Your task to perform on an android device: change alarm snooze length Image 0: 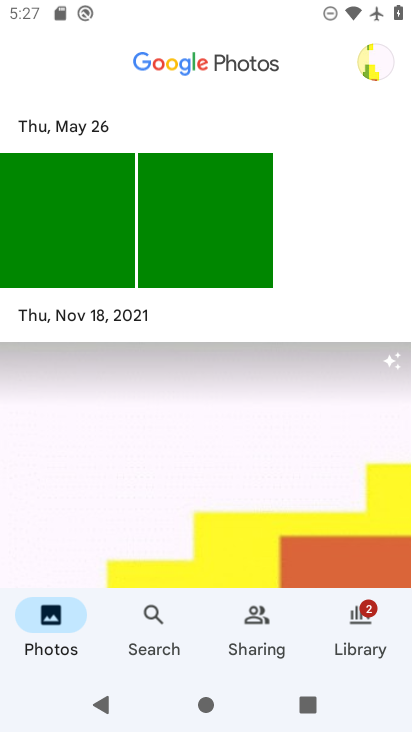
Step 0: press home button
Your task to perform on an android device: change alarm snooze length Image 1: 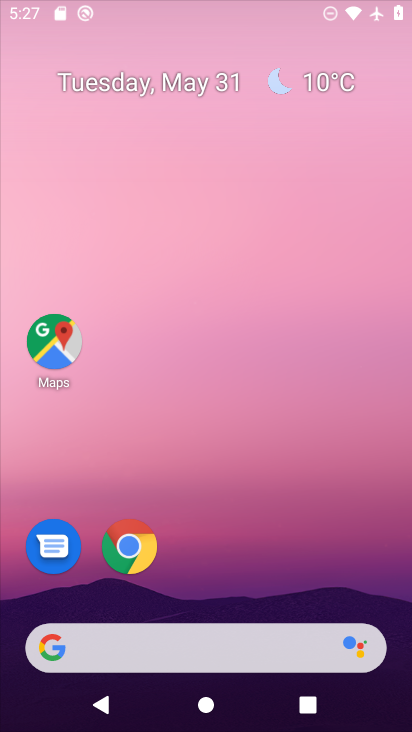
Step 1: drag from (257, 565) to (171, 22)
Your task to perform on an android device: change alarm snooze length Image 2: 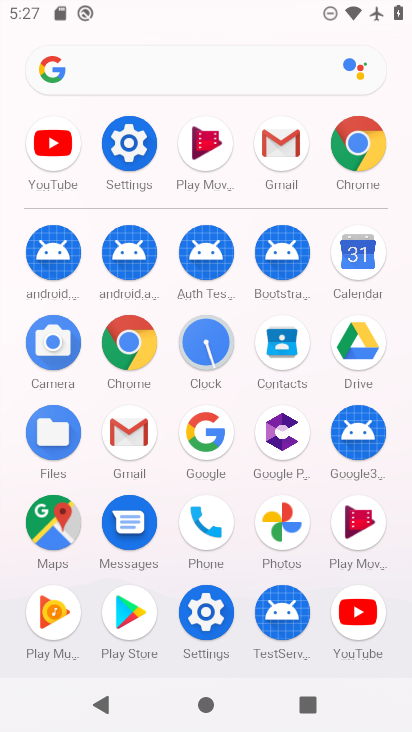
Step 2: click (207, 345)
Your task to perform on an android device: change alarm snooze length Image 3: 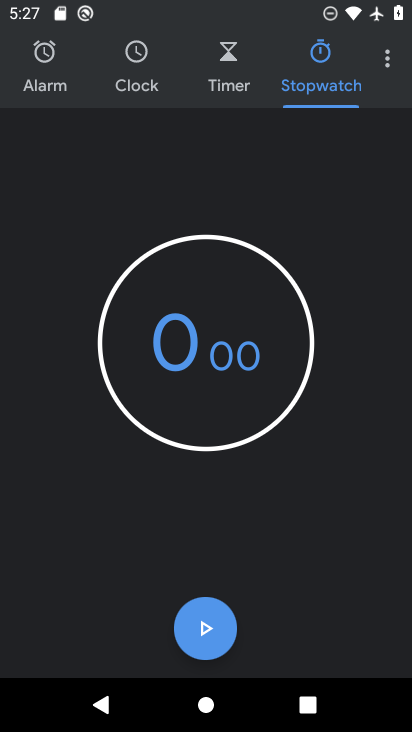
Step 3: click (388, 56)
Your task to perform on an android device: change alarm snooze length Image 4: 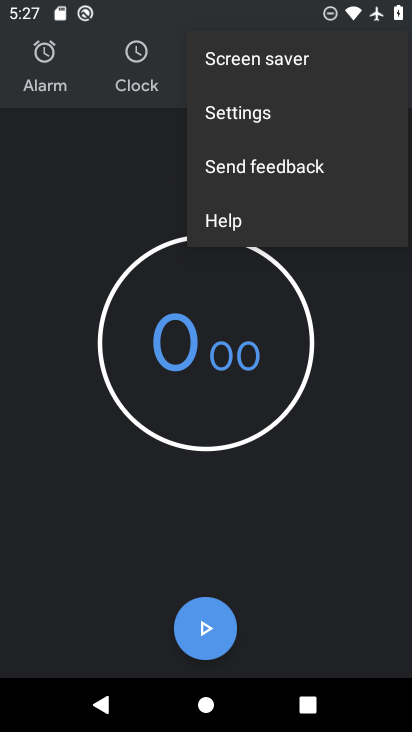
Step 4: click (265, 106)
Your task to perform on an android device: change alarm snooze length Image 5: 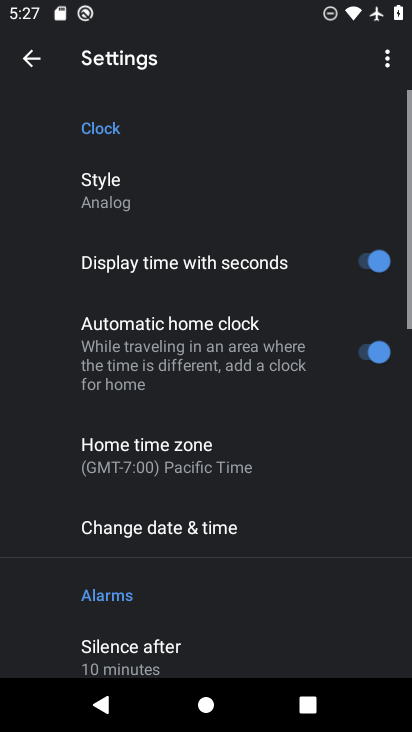
Step 5: drag from (170, 572) to (148, 119)
Your task to perform on an android device: change alarm snooze length Image 6: 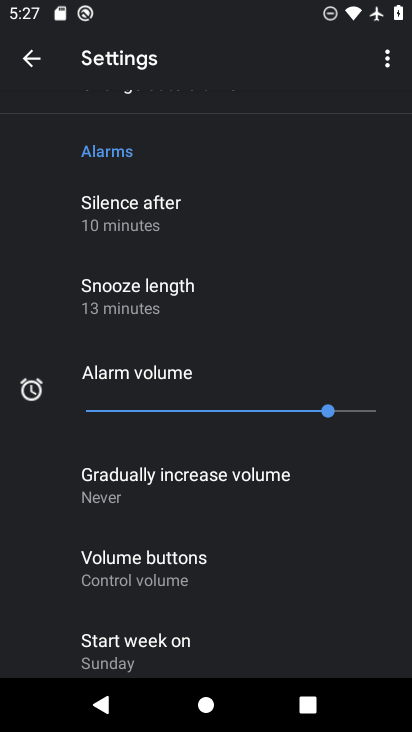
Step 6: click (155, 276)
Your task to perform on an android device: change alarm snooze length Image 7: 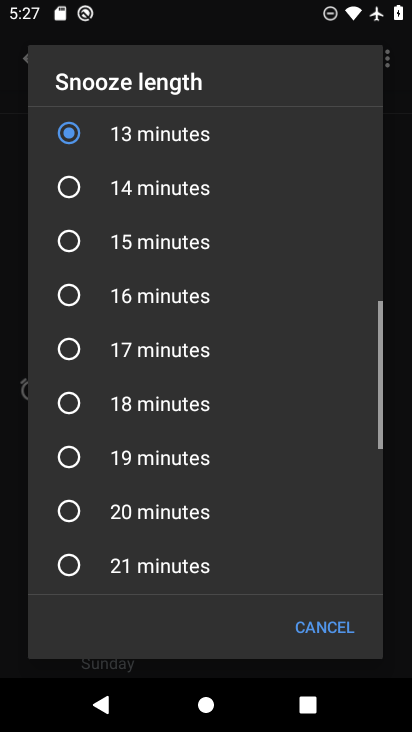
Step 7: click (177, 182)
Your task to perform on an android device: change alarm snooze length Image 8: 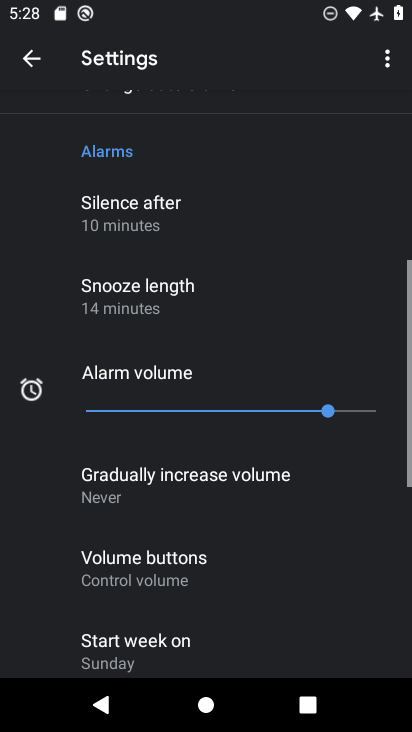
Step 8: task complete